Your task to perform on an android device: Open the calendar app, open the side menu, and click the "Day" option Image 0: 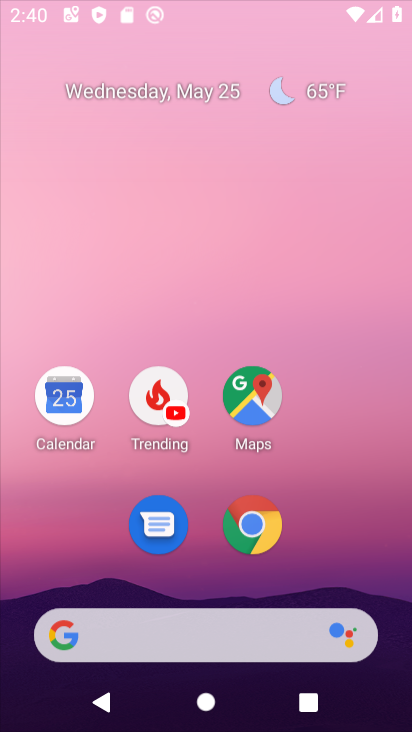
Step 0: press back button
Your task to perform on an android device: Open the calendar app, open the side menu, and click the "Day" option Image 1: 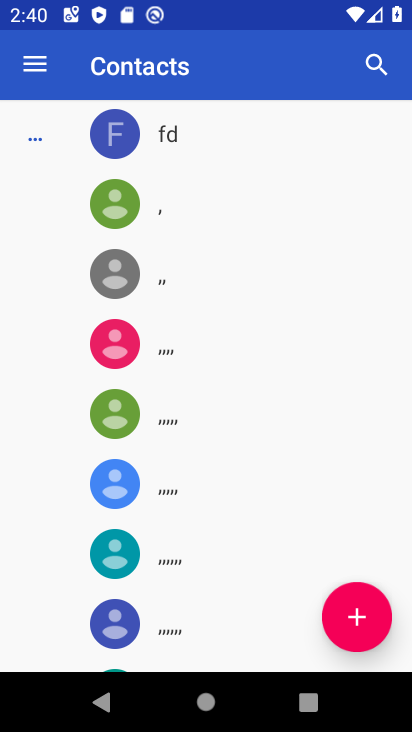
Step 1: press back button
Your task to perform on an android device: Open the calendar app, open the side menu, and click the "Day" option Image 2: 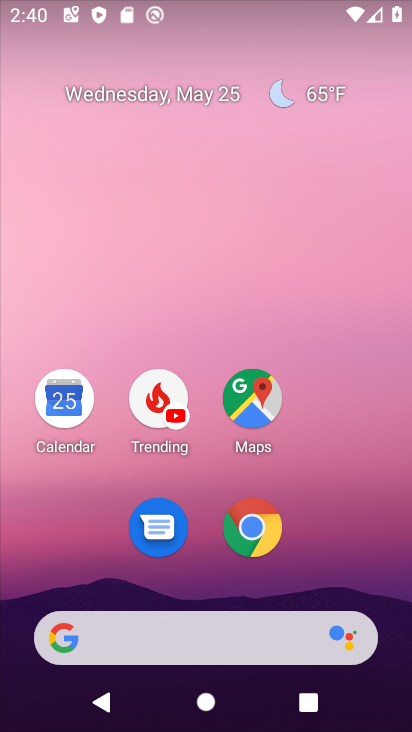
Step 2: press home button
Your task to perform on an android device: Open the calendar app, open the side menu, and click the "Day" option Image 3: 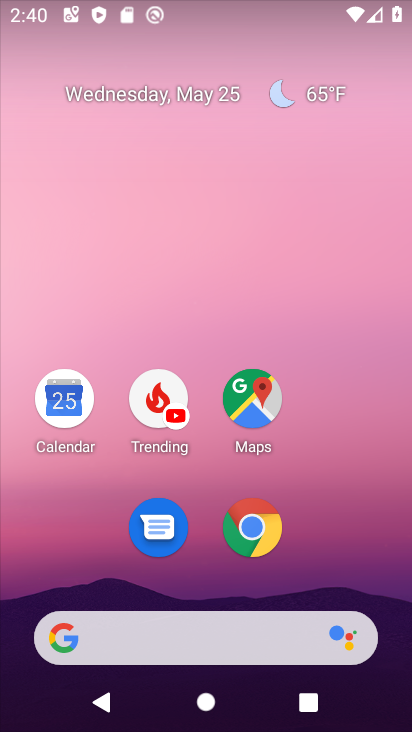
Step 3: drag from (262, 664) to (215, 351)
Your task to perform on an android device: Open the calendar app, open the side menu, and click the "Day" option Image 4: 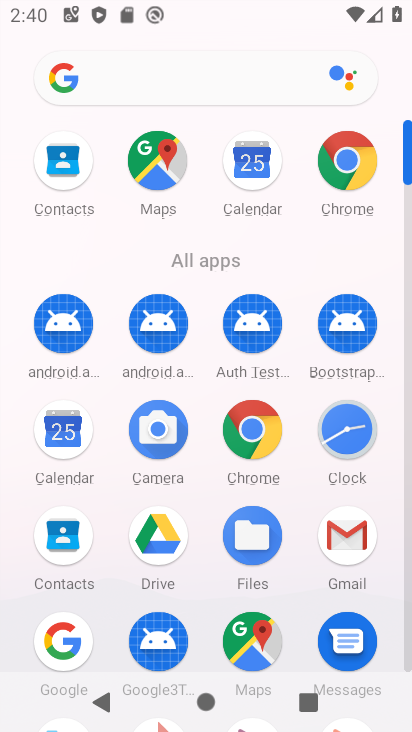
Step 4: click (66, 428)
Your task to perform on an android device: Open the calendar app, open the side menu, and click the "Day" option Image 5: 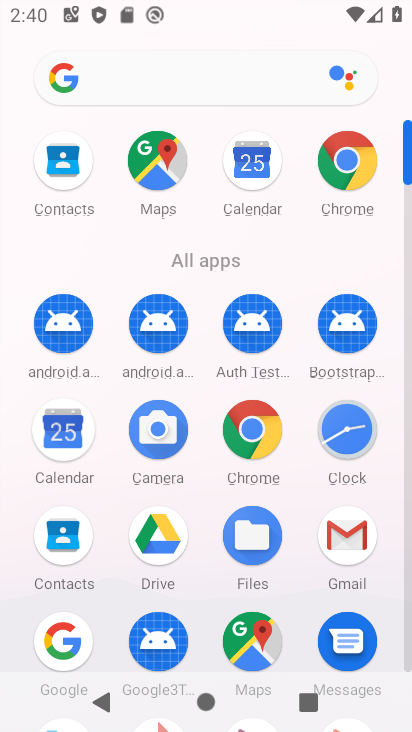
Step 5: click (67, 429)
Your task to perform on an android device: Open the calendar app, open the side menu, and click the "Day" option Image 6: 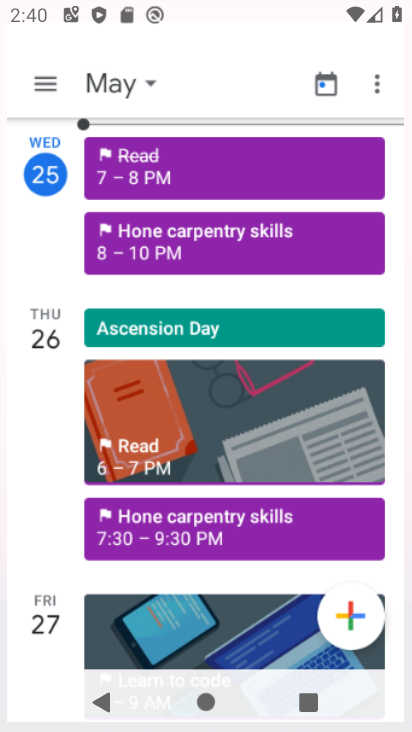
Step 6: click (70, 429)
Your task to perform on an android device: Open the calendar app, open the side menu, and click the "Day" option Image 7: 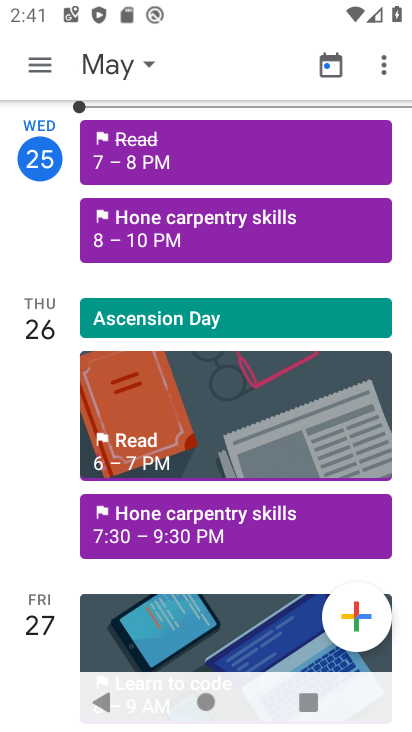
Step 7: click (33, 57)
Your task to perform on an android device: Open the calendar app, open the side menu, and click the "Day" option Image 8: 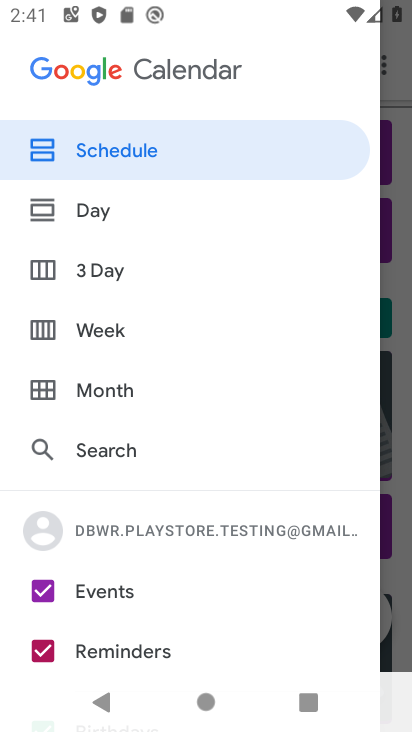
Step 8: click (74, 211)
Your task to perform on an android device: Open the calendar app, open the side menu, and click the "Day" option Image 9: 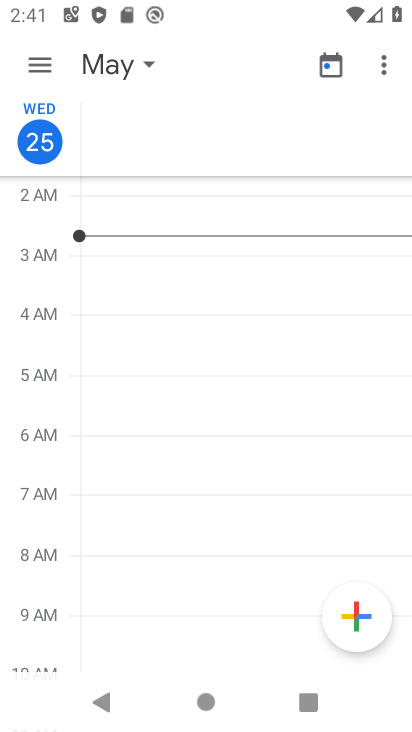
Step 9: task complete